Your task to perform on an android device: Open Youtube and go to the subscriptions tab Image 0: 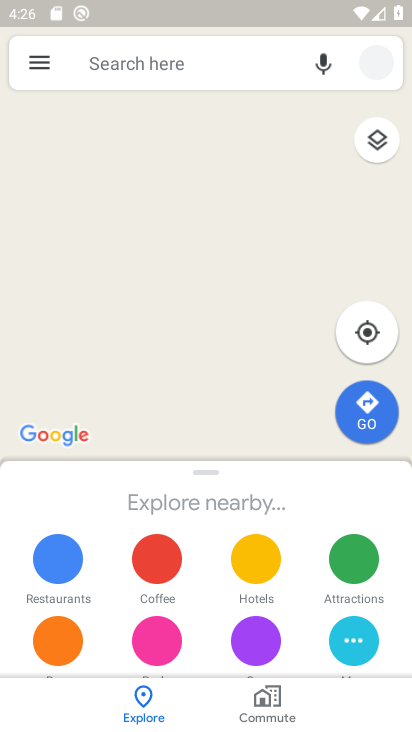
Step 0: press home button
Your task to perform on an android device: Open Youtube and go to the subscriptions tab Image 1: 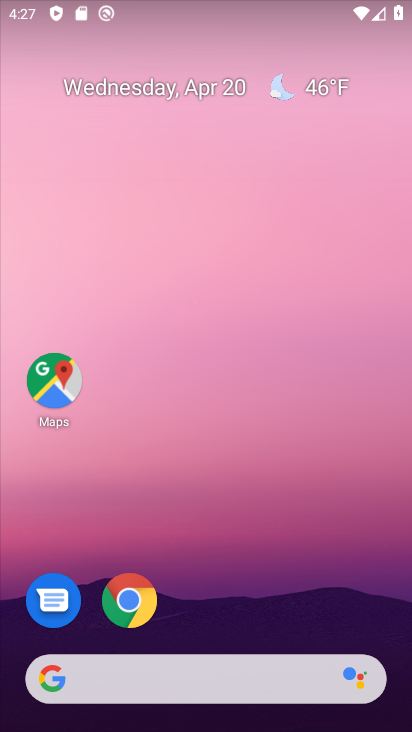
Step 1: drag from (219, 622) to (246, 110)
Your task to perform on an android device: Open Youtube and go to the subscriptions tab Image 2: 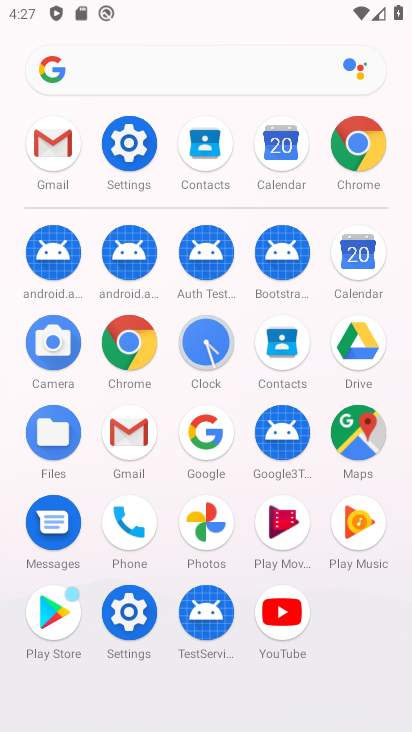
Step 2: click (278, 607)
Your task to perform on an android device: Open Youtube and go to the subscriptions tab Image 3: 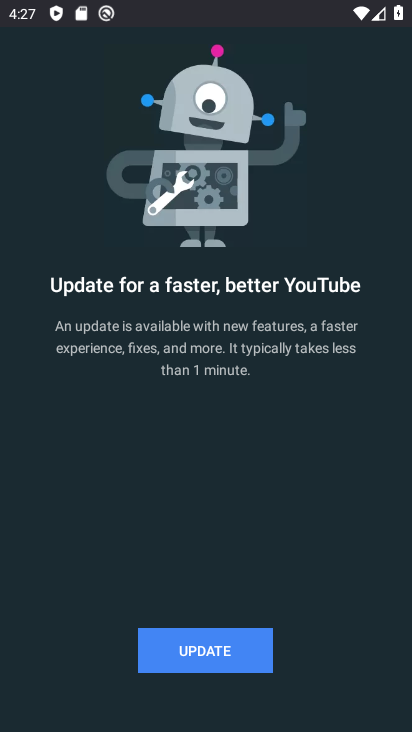
Step 3: press home button
Your task to perform on an android device: Open Youtube and go to the subscriptions tab Image 4: 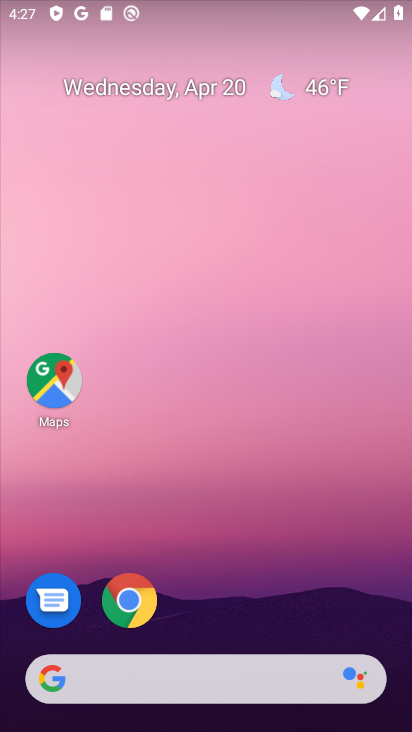
Step 4: drag from (232, 635) to (275, 59)
Your task to perform on an android device: Open Youtube and go to the subscriptions tab Image 5: 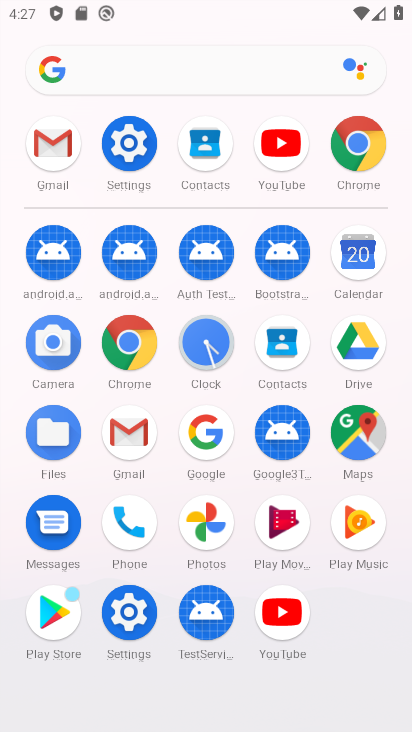
Step 5: click (281, 141)
Your task to perform on an android device: Open Youtube and go to the subscriptions tab Image 6: 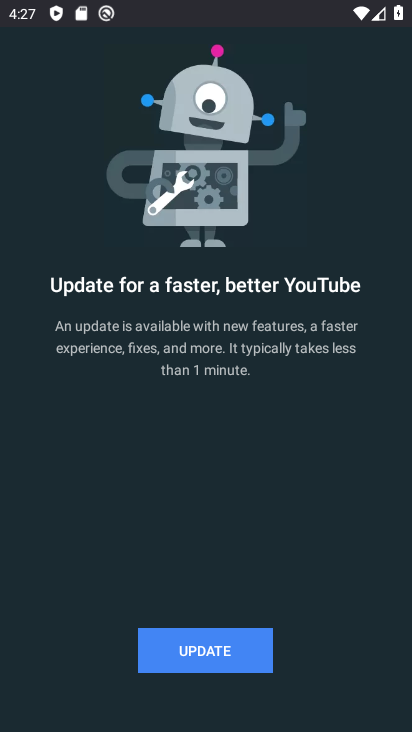
Step 6: click (207, 647)
Your task to perform on an android device: Open Youtube and go to the subscriptions tab Image 7: 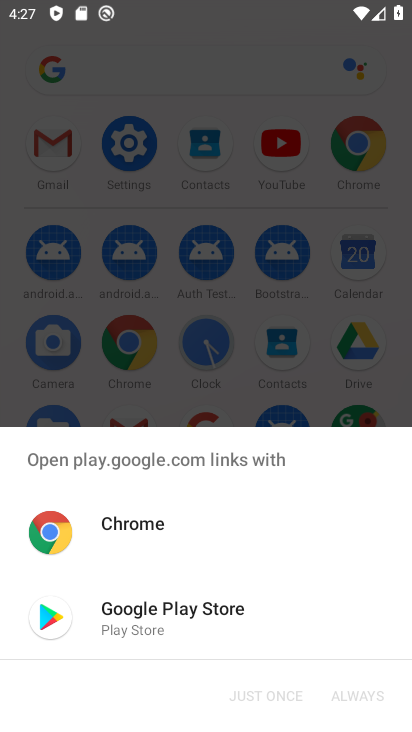
Step 7: click (144, 612)
Your task to perform on an android device: Open Youtube and go to the subscriptions tab Image 8: 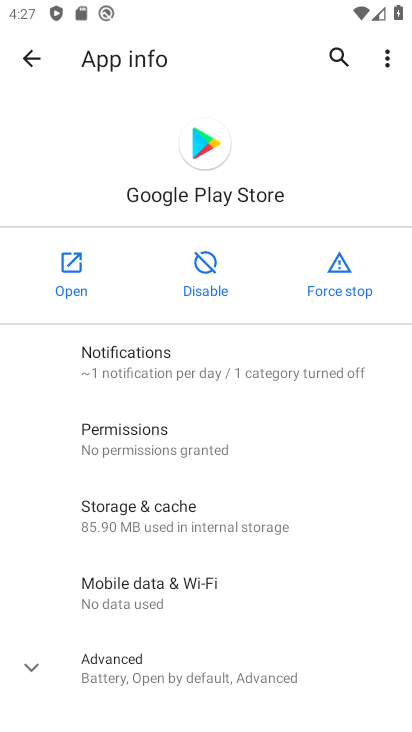
Step 8: press back button
Your task to perform on an android device: Open Youtube and go to the subscriptions tab Image 9: 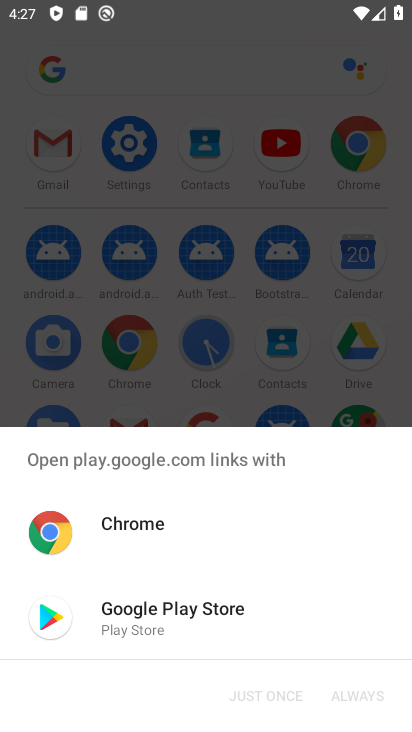
Step 9: click (175, 615)
Your task to perform on an android device: Open Youtube and go to the subscriptions tab Image 10: 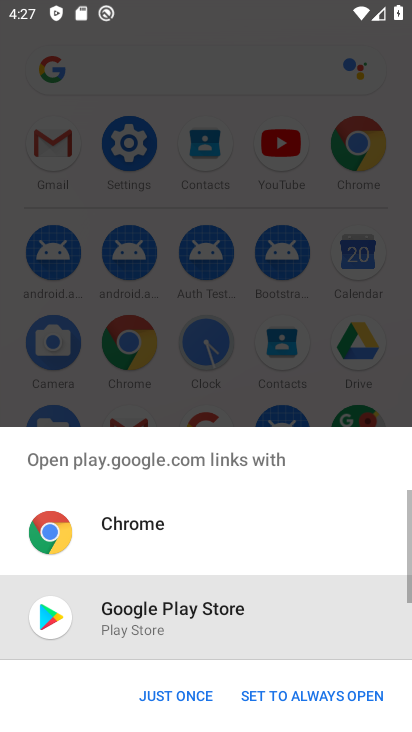
Step 10: click (182, 698)
Your task to perform on an android device: Open Youtube and go to the subscriptions tab Image 11: 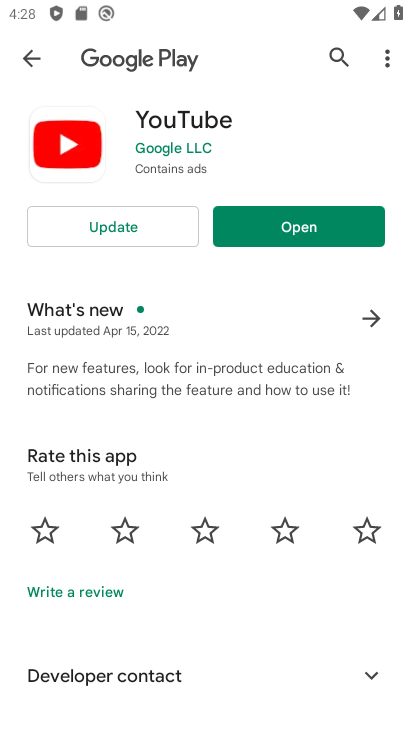
Step 11: click (158, 232)
Your task to perform on an android device: Open Youtube and go to the subscriptions tab Image 12: 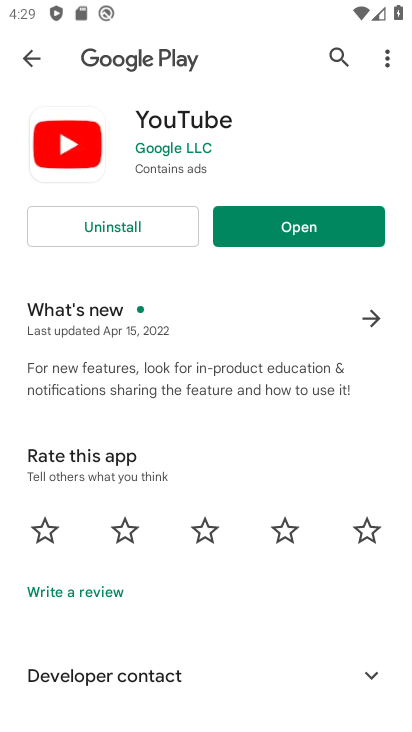
Step 12: click (297, 226)
Your task to perform on an android device: Open Youtube and go to the subscriptions tab Image 13: 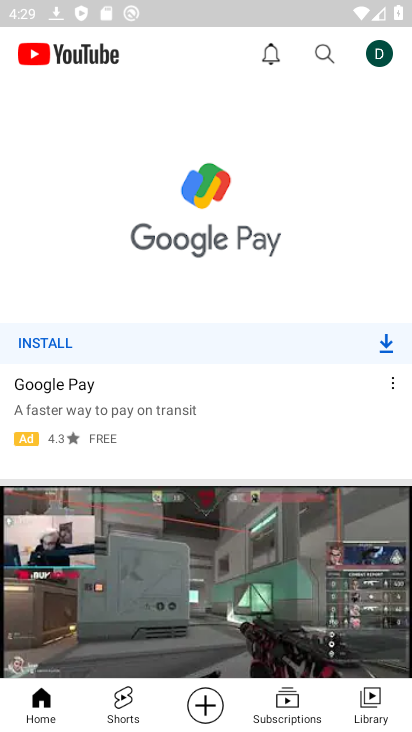
Step 13: click (286, 700)
Your task to perform on an android device: Open Youtube and go to the subscriptions tab Image 14: 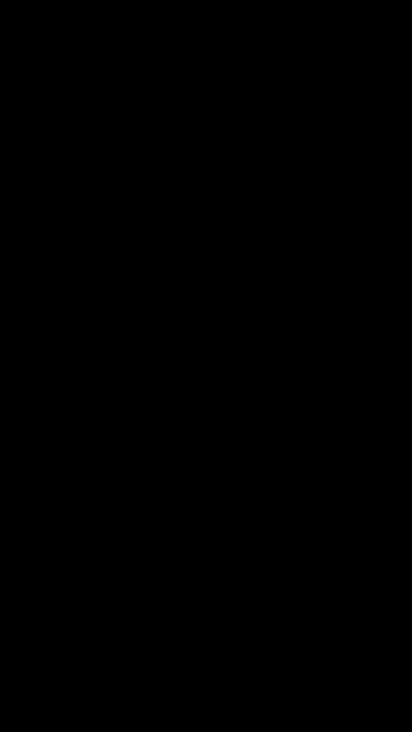
Step 14: task complete